Your task to perform on an android device: Turn off the flashlight Image 0: 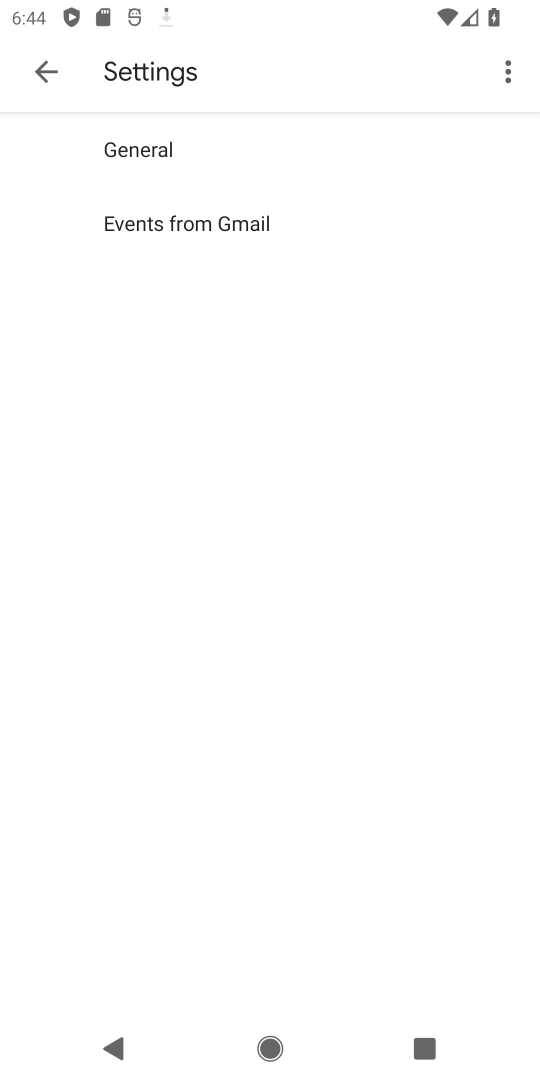
Step 0: press home button
Your task to perform on an android device: Turn off the flashlight Image 1: 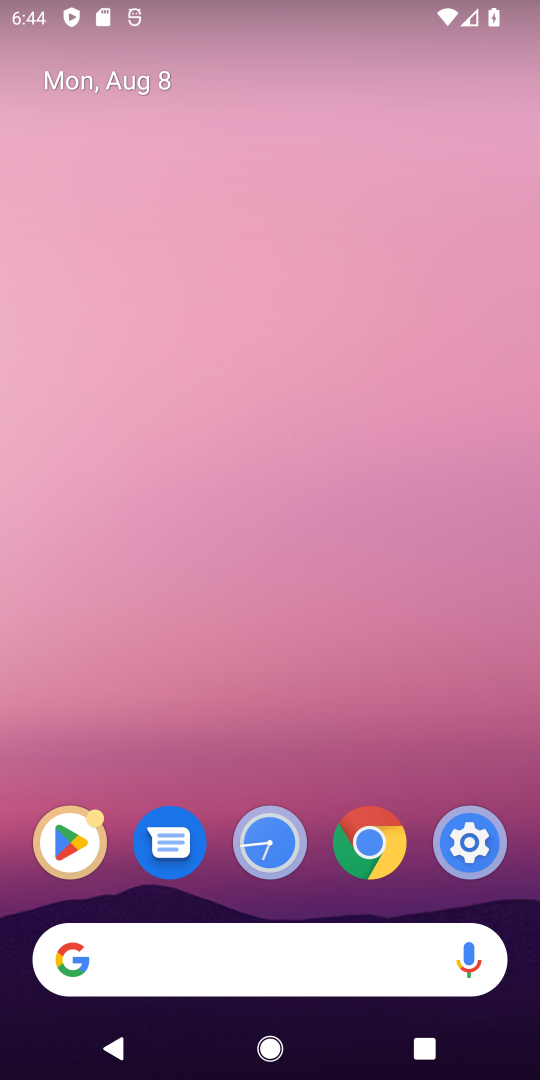
Step 1: drag from (278, 761) to (179, 31)
Your task to perform on an android device: Turn off the flashlight Image 2: 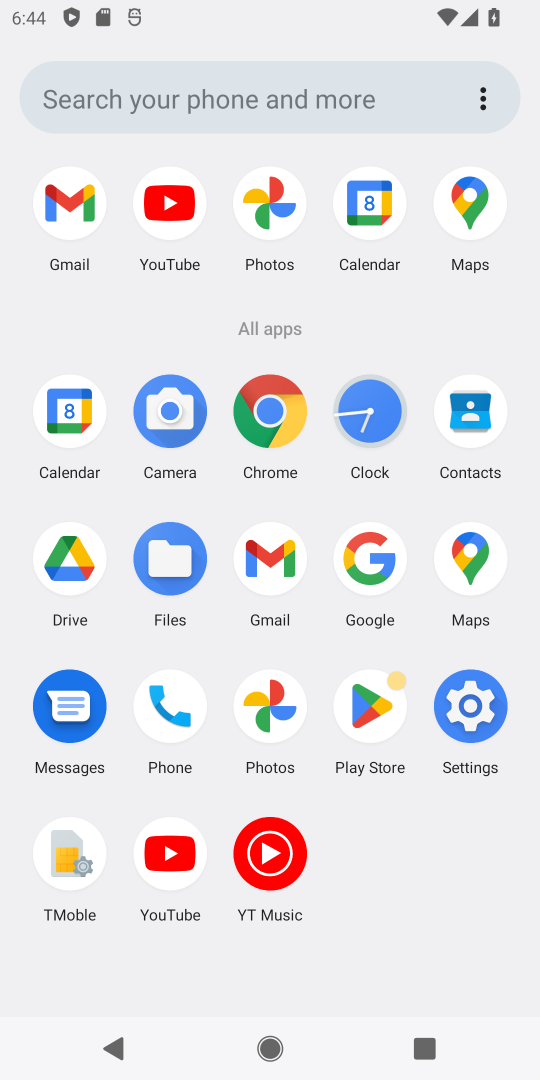
Step 2: click (461, 736)
Your task to perform on an android device: Turn off the flashlight Image 3: 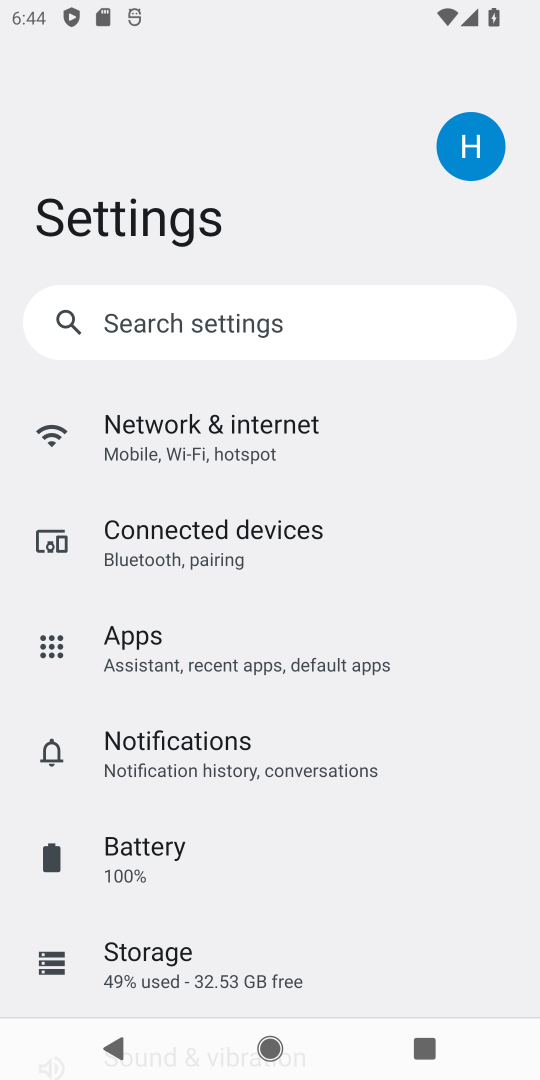
Step 3: task complete